Your task to perform on an android device: turn off sleep mode Image 0: 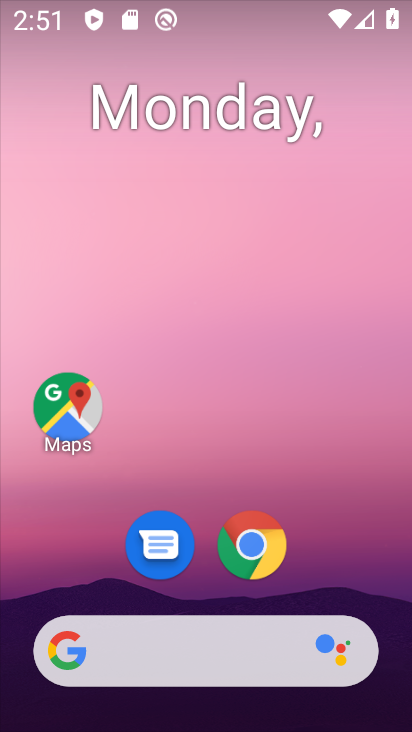
Step 0: drag from (228, 484) to (275, 149)
Your task to perform on an android device: turn off sleep mode Image 1: 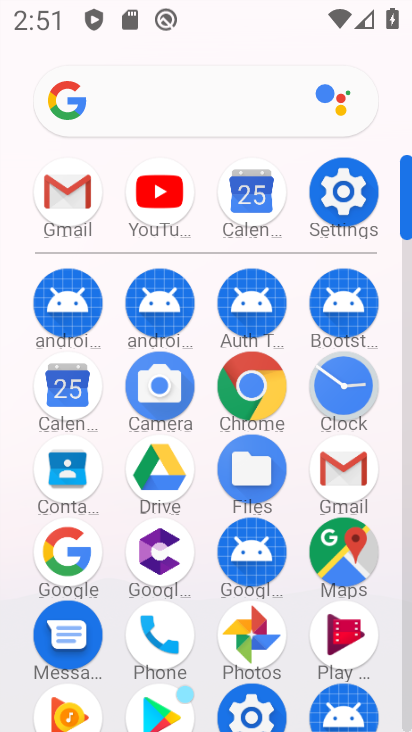
Step 1: click (354, 199)
Your task to perform on an android device: turn off sleep mode Image 2: 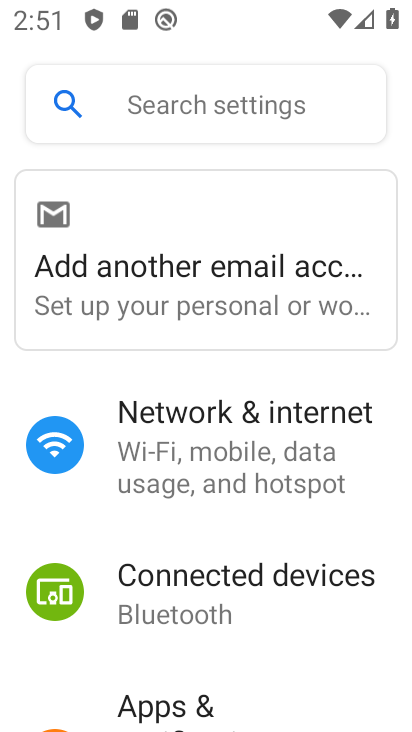
Step 2: click (177, 109)
Your task to perform on an android device: turn off sleep mode Image 3: 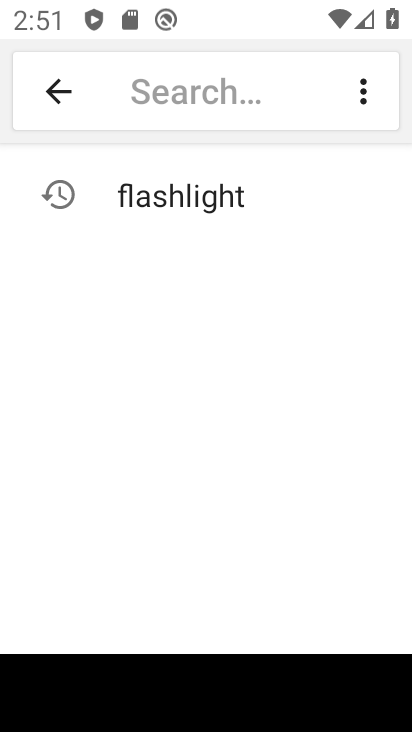
Step 3: type "sleep mode"
Your task to perform on an android device: turn off sleep mode Image 4: 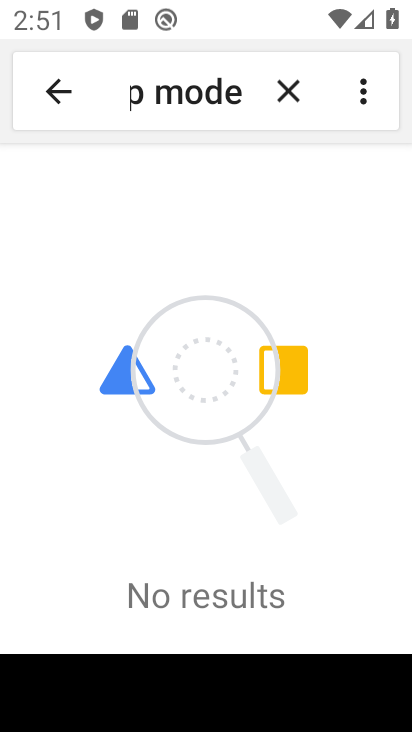
Step 4: task complete